Your task to perform on an android device: turn on airplane mode Image 0: 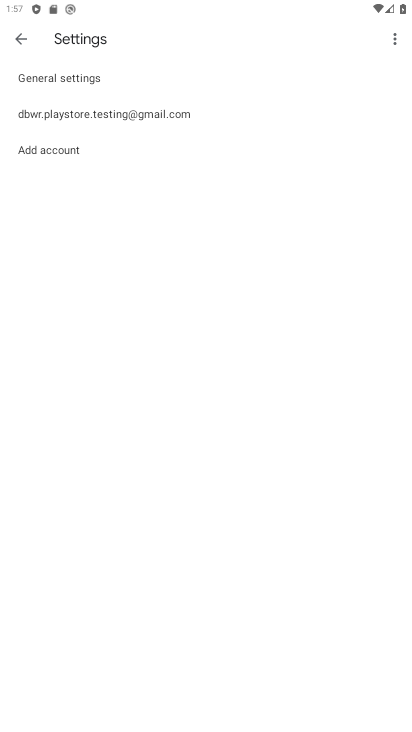
Step 0: press home button
Your task to perform on an android device: turn on airplane mode Image 1: 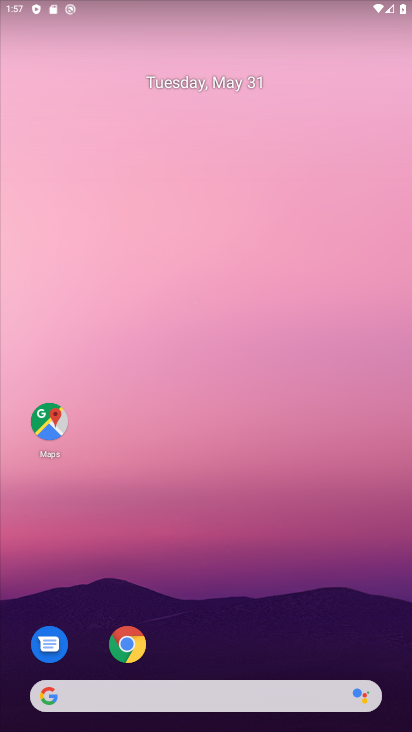
Step 1: drag from (238, 454) to (170, 159)
Your task to perform on an android device: turn on airplane mode Image 2: 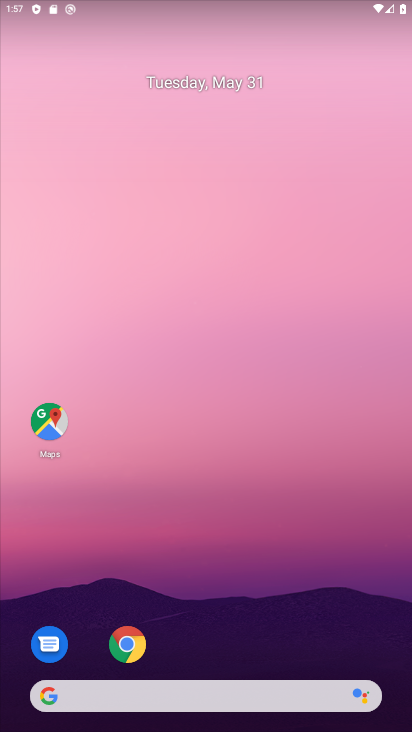
Step 2: drag from (235, 581) to (305, 121)
Your task to perform on an android device: turn on airplane mode Image 3: 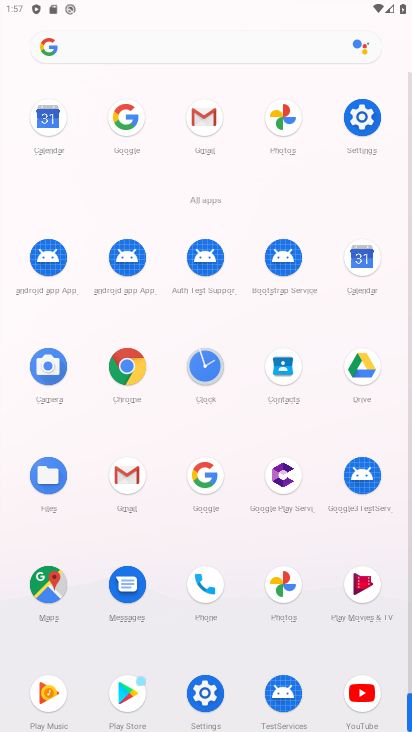
Step 3: click (368, 110)
Your task to perform on an android device: turn on airplane mode Image 4: 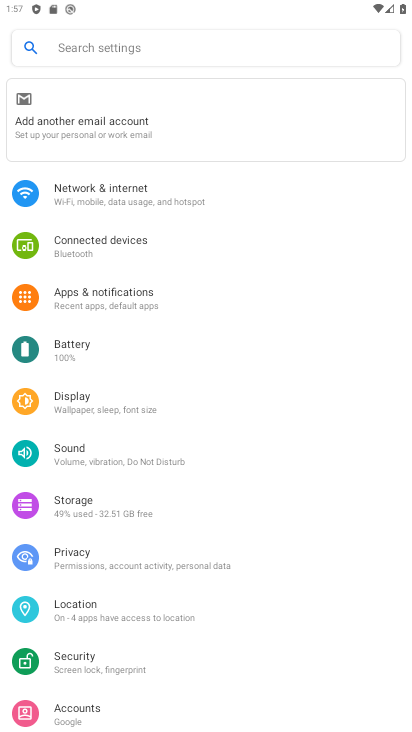
Step 4: click (146, 202)
Your task to perform on an android device: turn on airplane mode Image 5: 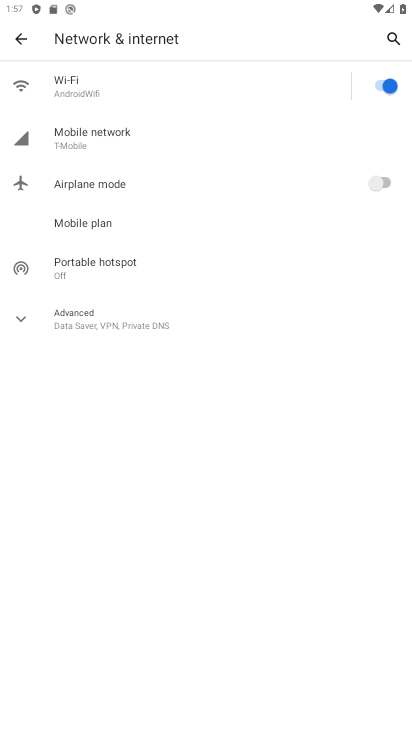
Step 5: click (385, 178)
Your task to perform on an android device: turn on airplane mode Image 6: 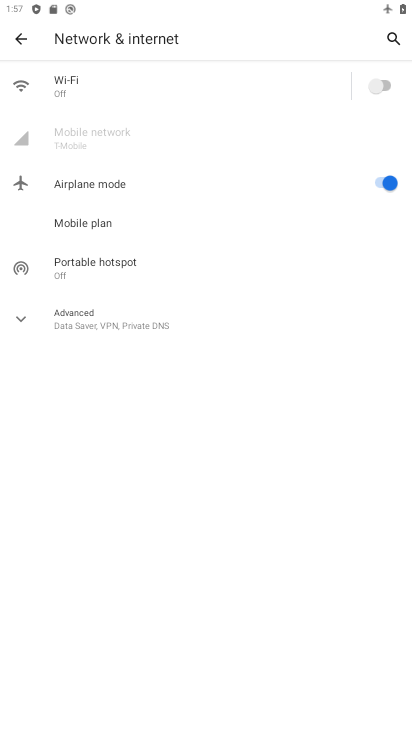
Step 6: task complete